Your task to perform on an android device: Open accessibility settings Image 0: 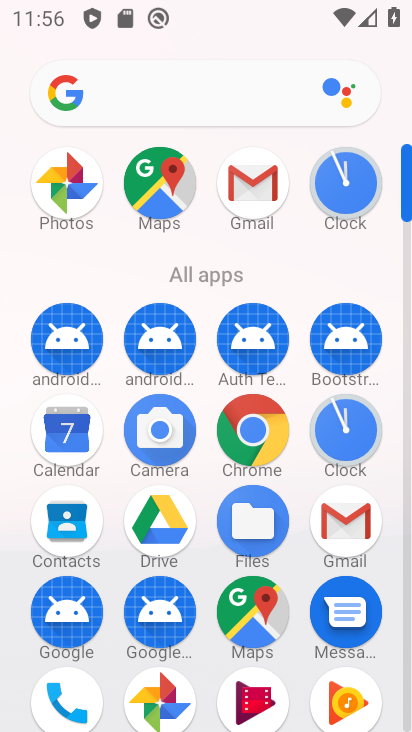
Step 0: press home button
Your task to perform on an android device: Open accessibility settings Image 1: 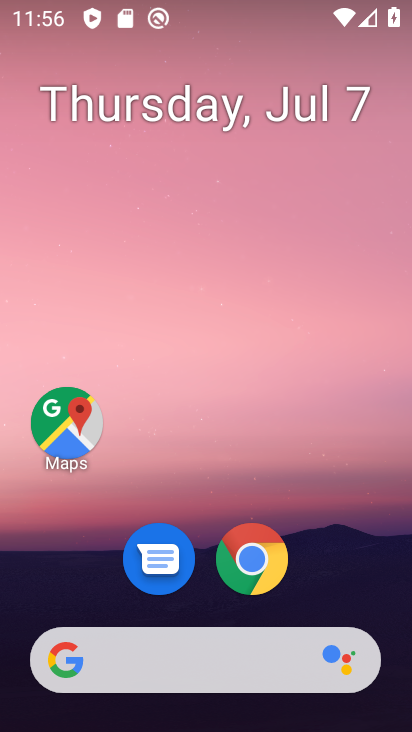
Step 1: drag from (208, 644) to (182, 186)
Your task to perform on an android device: Open accessibility settings Image 2: 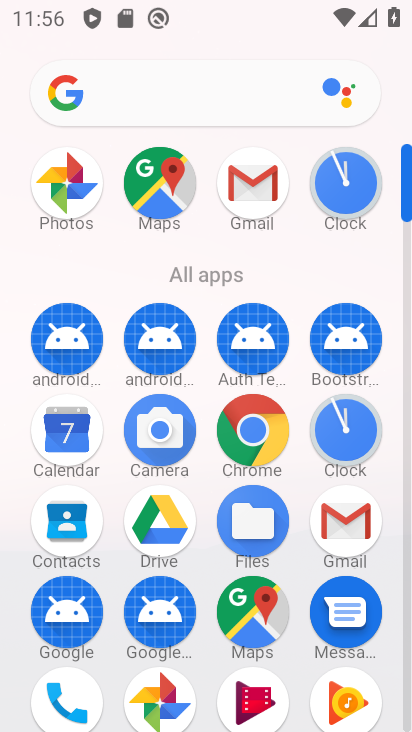
Step 2: drag from (207, 592) to (202, 106)
Your task to perform on an android device: Open accessibility settings Image 3: 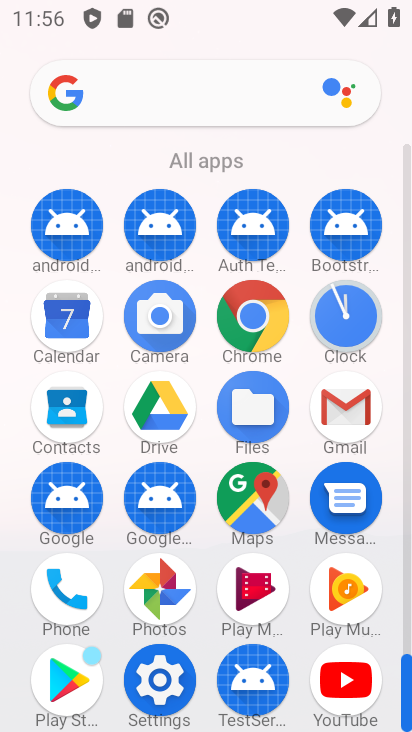
Step 3: click (157, 666)
Your task to perform on an android device: Open accessibility settings Image 4: 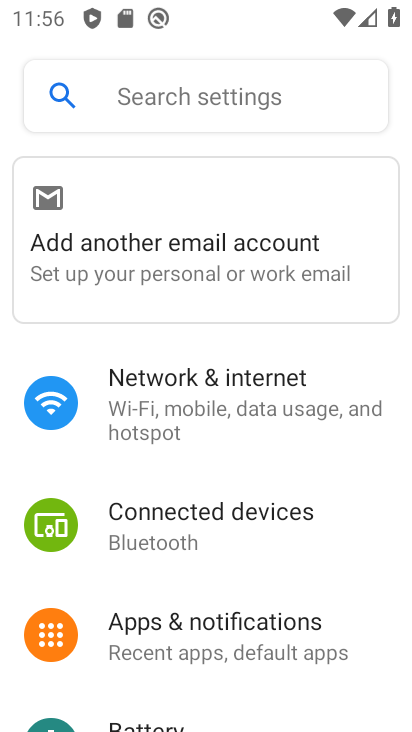
Step 4: drag from (201, 607) to (154, 230)
Your task to perform on an android device: Open accessibility settings Image 5: 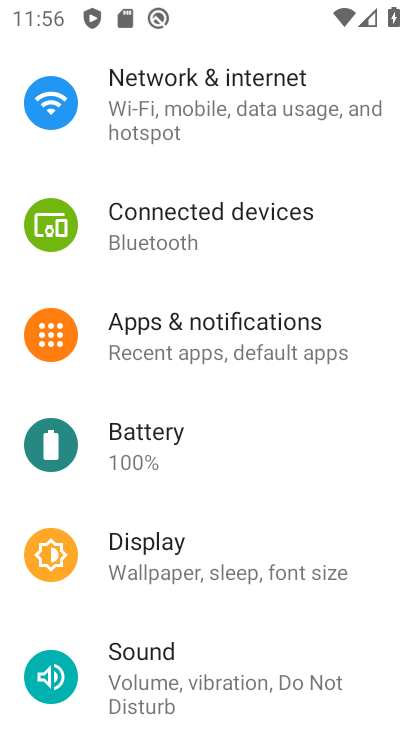
Step 5: drag from (284, 602) to (275, 253)
Your task to perform on an android device: Open accessibility settings Image 6: 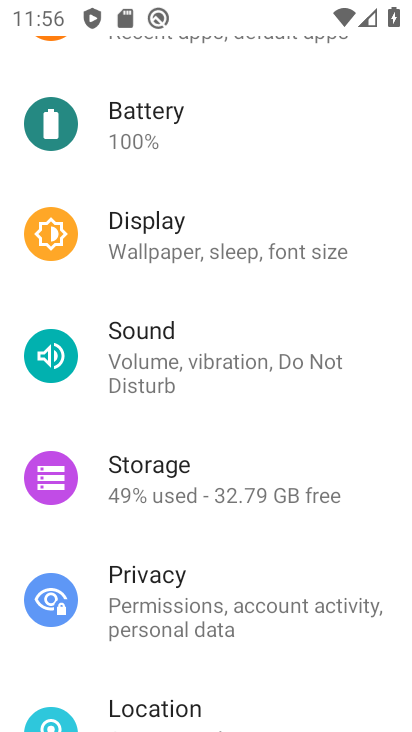
Step 6: drag from (326, 666) to (264, 313)
Your task to perform on an android device: Open accessibility settings Image 7: 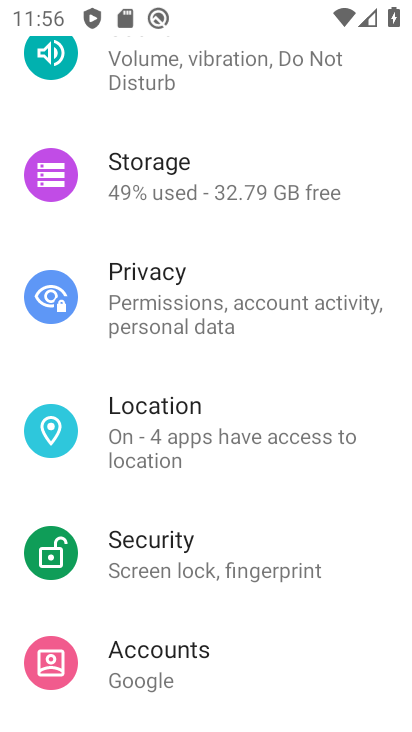
Step 7: drag from (287, 532) to (281, 375)
Your task to perform on an android device: Open accessibility settings Image 8: 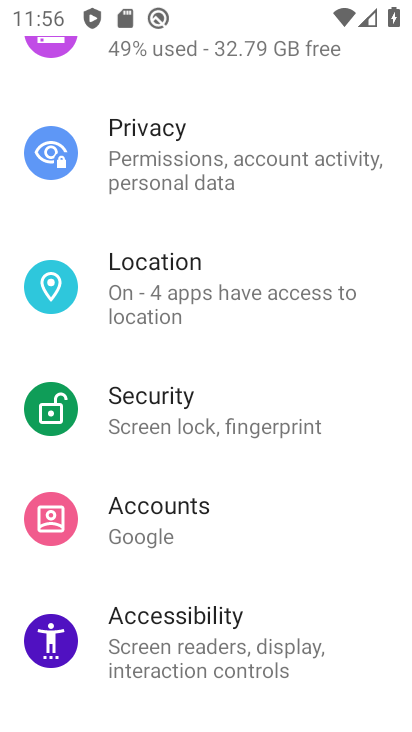
Step 8: click (243, 619)
Your task to perform on an android device: Open accessibility settings Image 9: 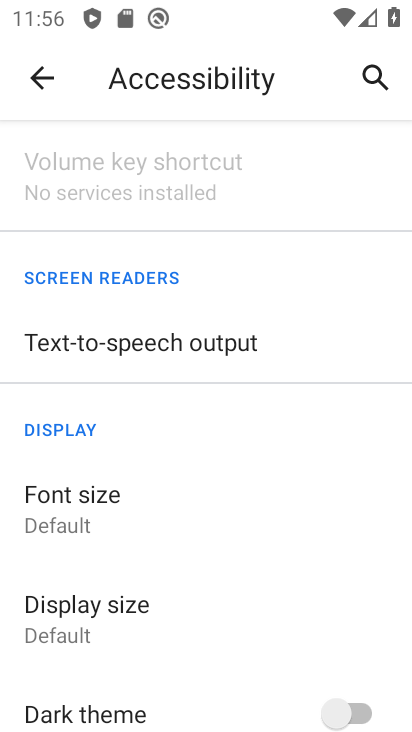
Step 9: task complete